Your task to perform on an android device: turn off priority inbox in the gmail app Image 0: 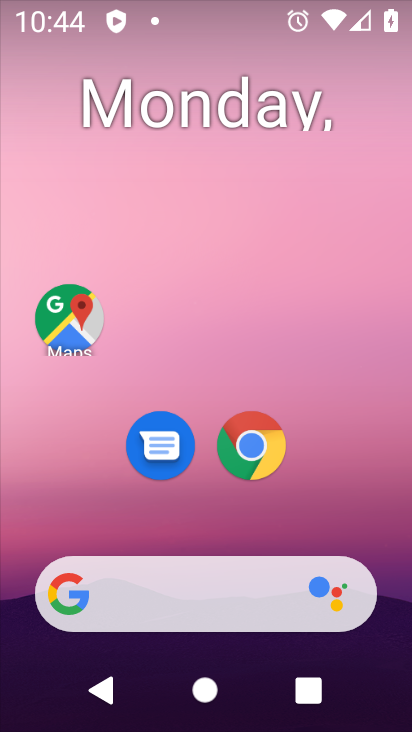
Step 0: drag from (343, 507) to (168, 121)
Your task to perform on an android device: turn off priority inbox in the gmail app Image 1: 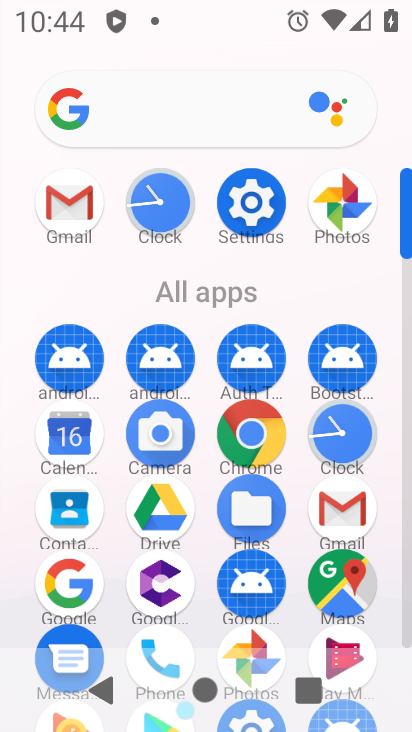
Step 1: click (74, 215)
Your task to perform on an android device: turn off priority inbox in the gmail app Image 2: 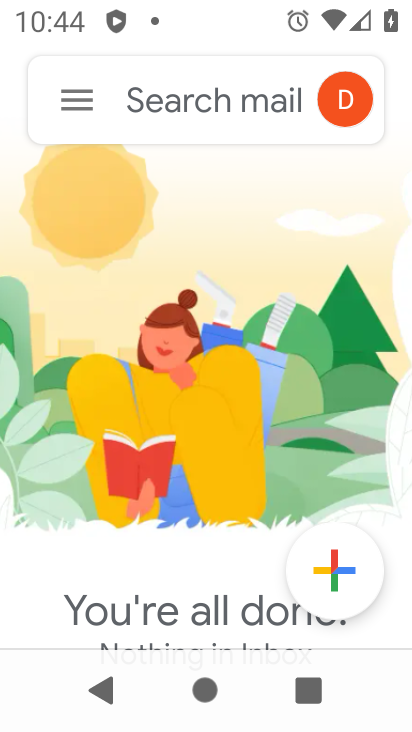
Step 2: click (72, 106)
Your task to perform on an android device: turn off priority inbox in the gmail app Image 3: 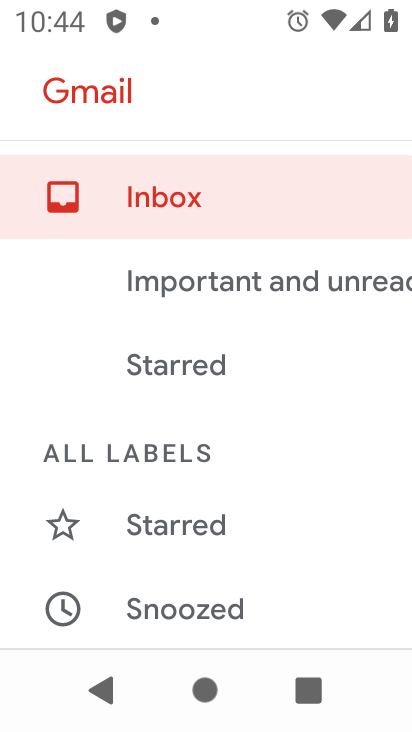
Step 3: drag from (189, 589) to (213, 211)
Your task to perform on an android device: turn off priority inbox in the gmail app Image 4: 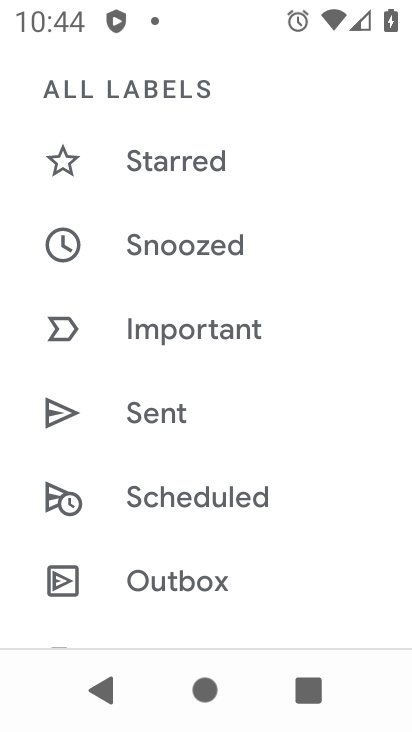
Step 4: drag from (223, 623) to (252, 268)
Your task to perform on an android device: turn off priority inbox in the gmail app Image 5: 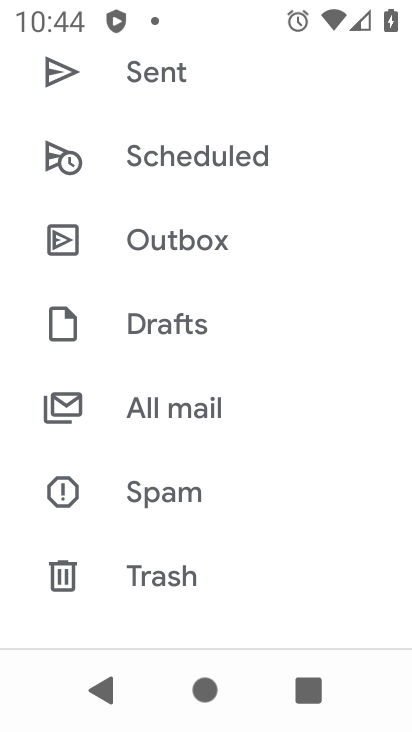
Step 5: drag from (203, 593) to (170, 420)
Your task to perform on an android device: turn off priority inbox in the gmail app Image 6: 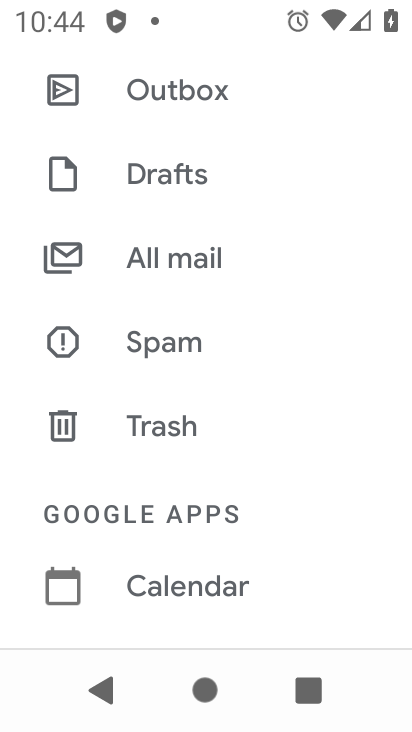
Step 6: drag from (158, 315) to (165, 219)
Your task to perform on an android device: turn off priority inbox in the gmail app Image 7: 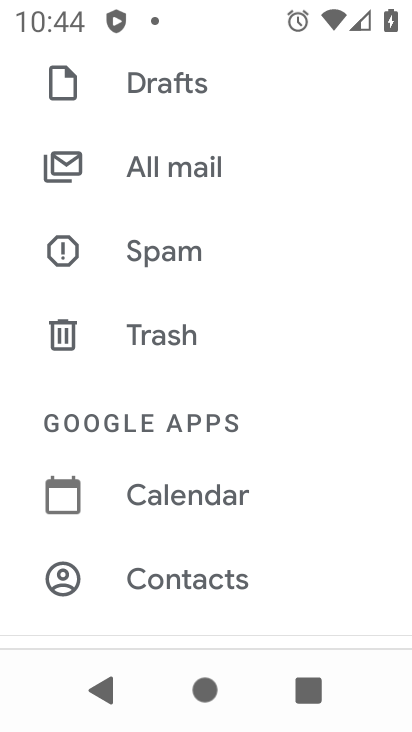
Step 7: drag from (152, 585) to (151, 208)
Your task to perform on an android device: turn off priority inbox in the gmail app Image 8: 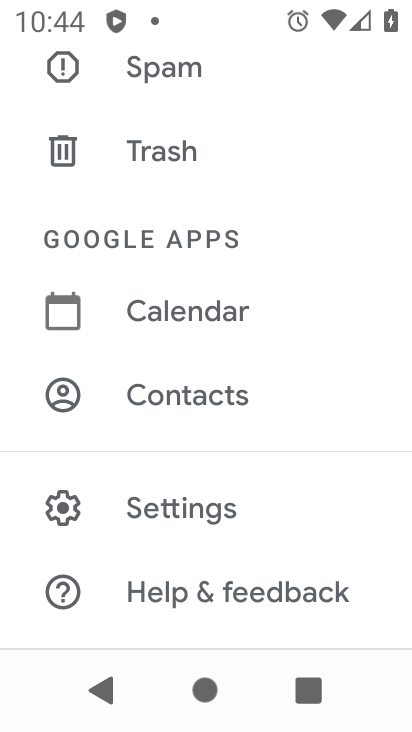
Step 8: click (153, 510)
Your task to perform on an android device: turn off priority inbox in the gmail app Image 9: 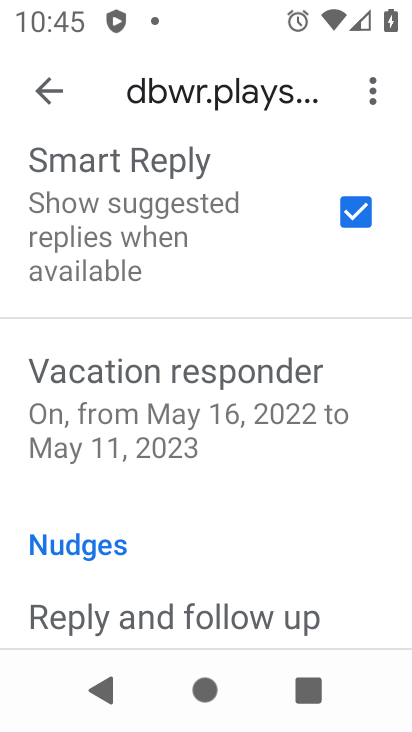
Step 9: drag from (175, 192) to (155, 570)
Your task to perform on an android device: turn off priority inbox in the gmail app Image 10: 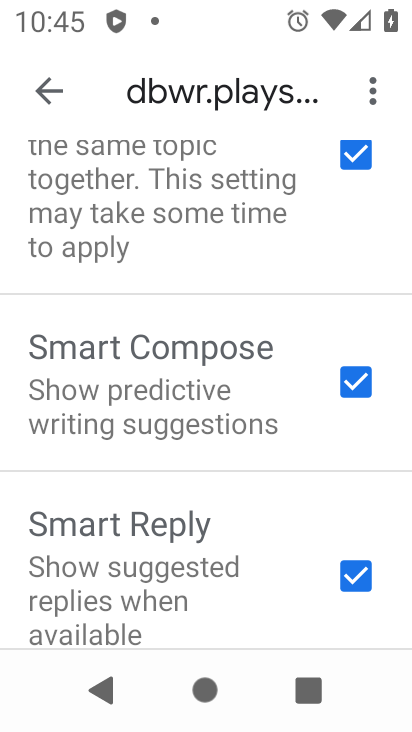
Step 10: drag from (195, 244) to (220, 590)
Your task to perform on an android device: turn off priority inbox in the gmail app Image 11: 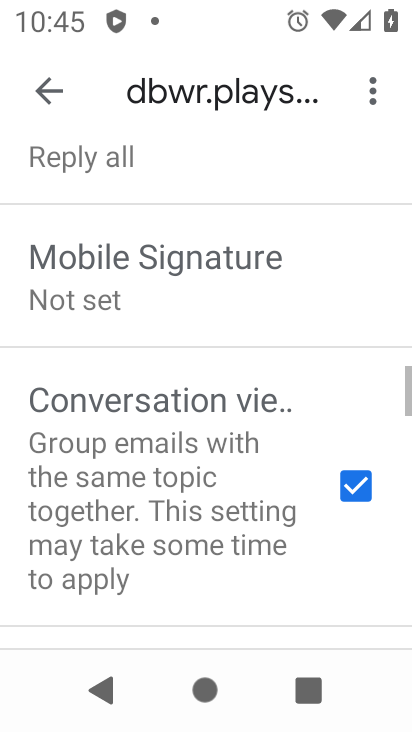
Step 11: drag from (202, 262) to (193, 578)
Your task to perform on an android device: turn off priority inbox in the gmail app Image 12: 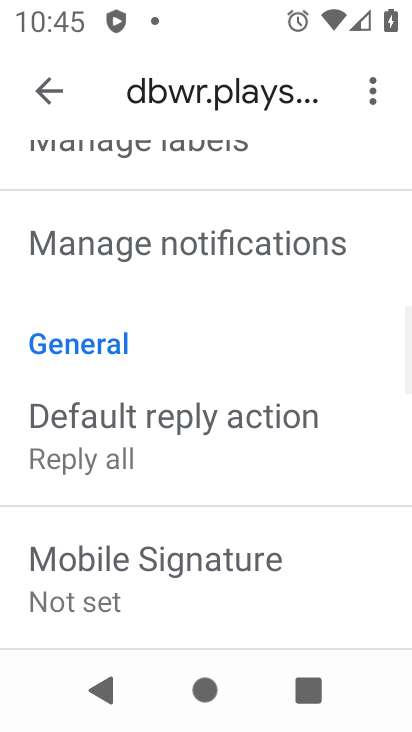
Step 12: drag from (238, 251) to (225, 525)
Your task to perform on an android device: turn off priority inbox in the gmail app Image 13: 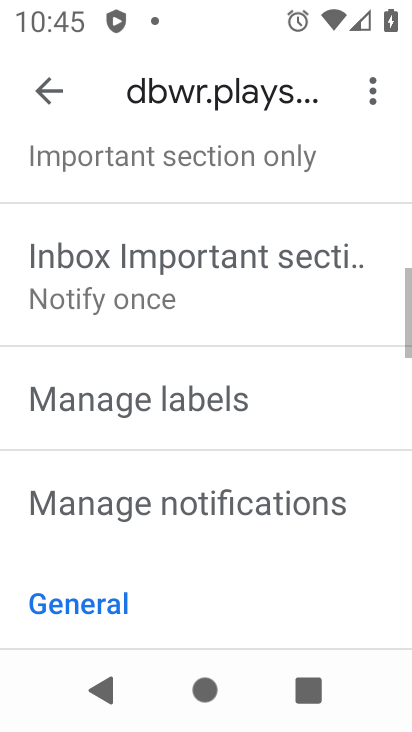
Step 13: drag from (137, 221) to (137, 512)
Your task to perform on an android device: turn off priority inbox in the gmail app Image 14: 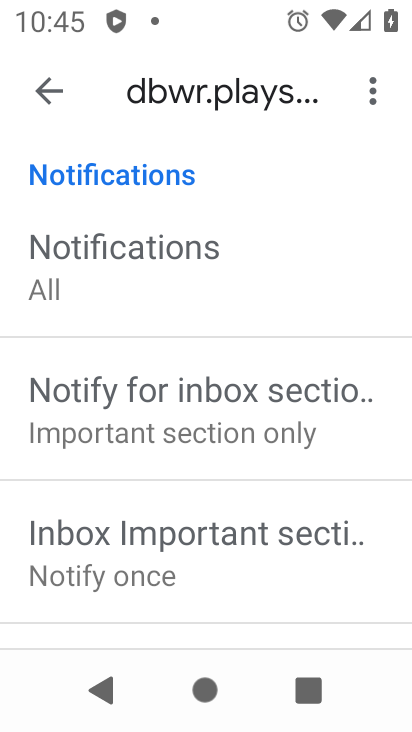
Step 14: drag from (172, 227) to (135, 545)
Your task to perform on an android device: turn off priority inbox in the gmail app Image 15: 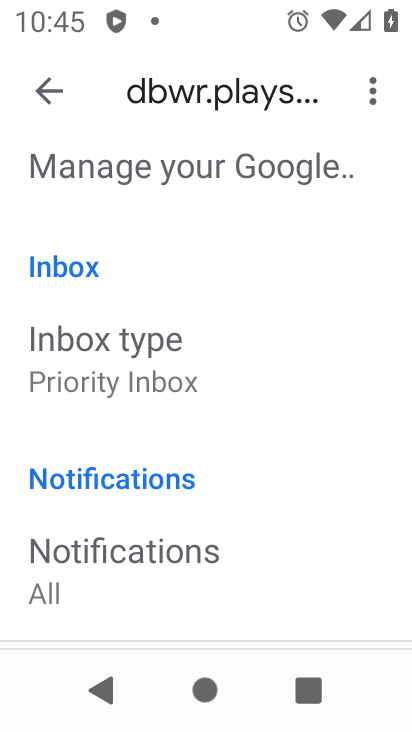
Step 15: click (107, 364)
Your task to perform on an android device: turn off priority inbox in the gmail app Image 16: 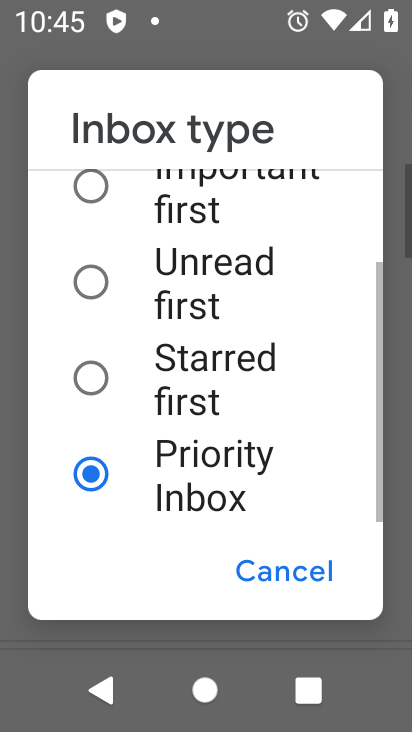
Step 16: click (83, 294)
Your task to perform on an android device: turn off priority inbox in the gmail app Image 17: 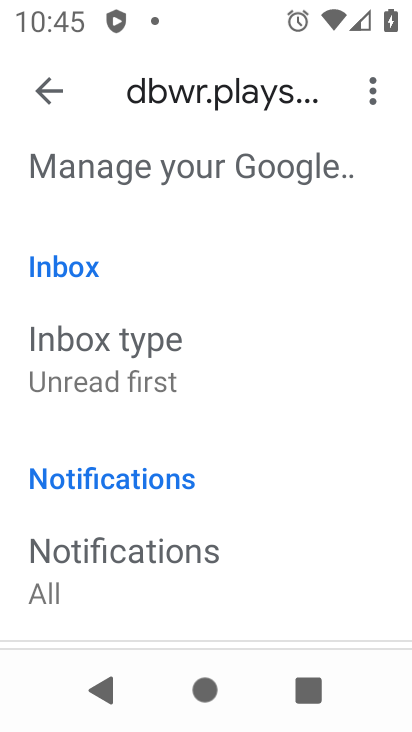
Step 17: task complete